Your task to perform on an android device: change the clock display to digital Image 0: 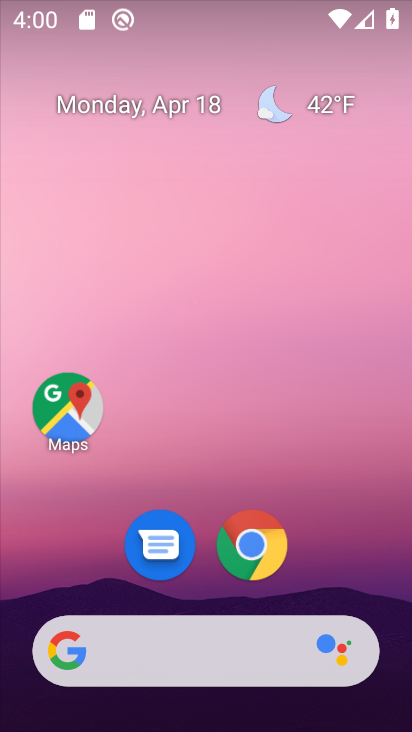
Step 0: drag from (331, 558) to (324, 107)
Your task to perform on an android device: change the clock display to digital Image 1: 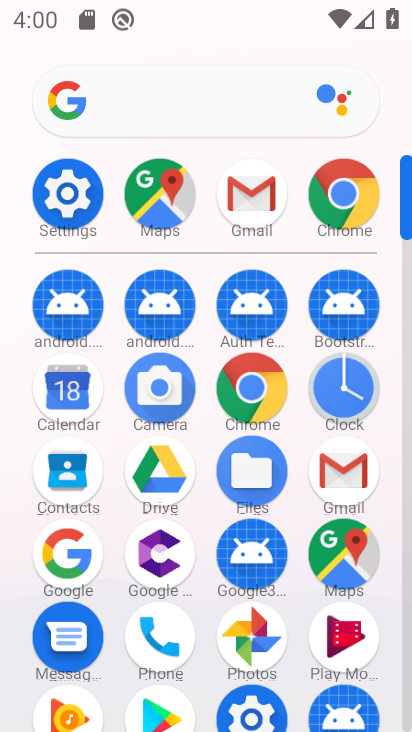
Step 1: click (345, 389)
Your task to perform on an android device: change the clock display to digital Image 2: 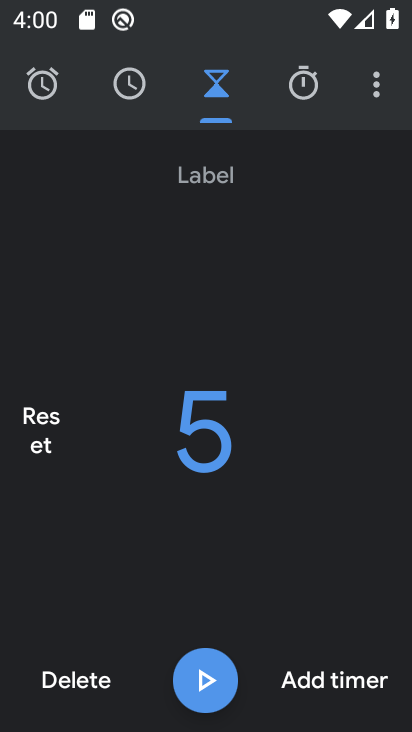
Step 2: click (379, 89)
Your task to perform on an android device: change the clock display to digital Image 3: 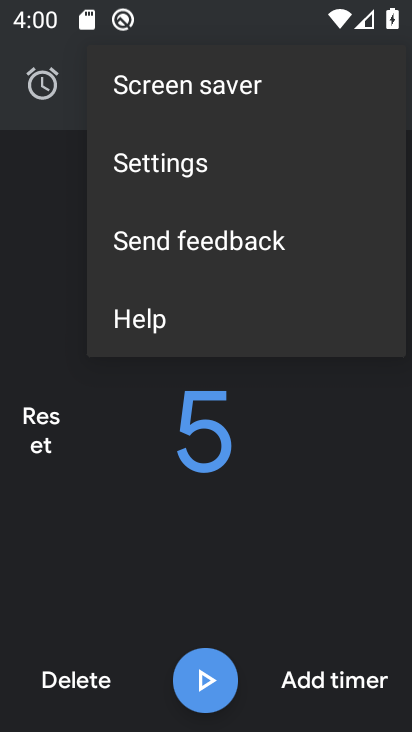
Step 3: click (210, 165)
Your task to perform on an android device: change the clock display to digital Image 4: 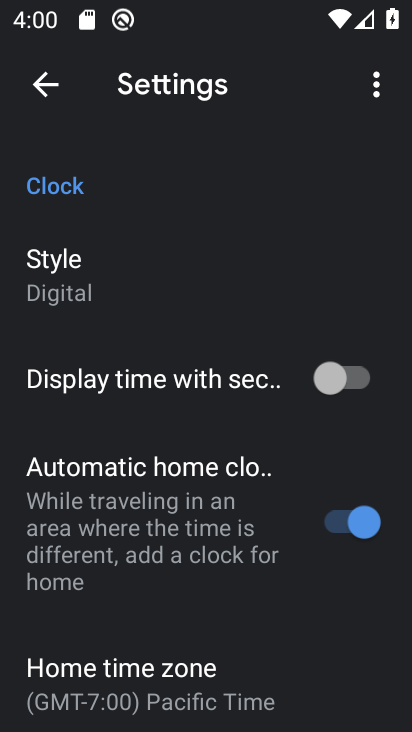
Step 4: drag from (273, 570) to (272, 405)
Your task to perform on an android device: change the clock display to digital Image 5: 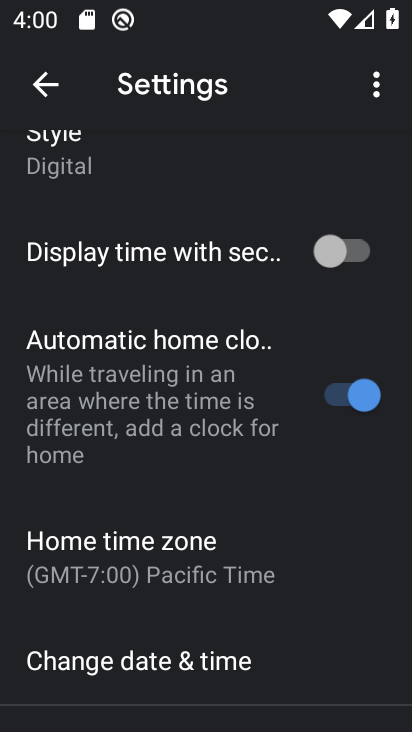
Step 5: drag from (312, 618) to (292, 395)
Your task to perform on an android device: change the clock display to digital Image 6: 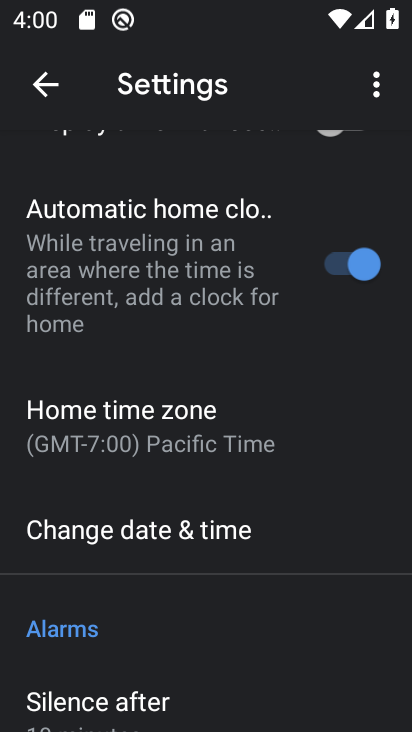
Step 6: drag from (308, 582) to (313, 399)
Your task to perform on an android device: change the clock display to digital Image 7: 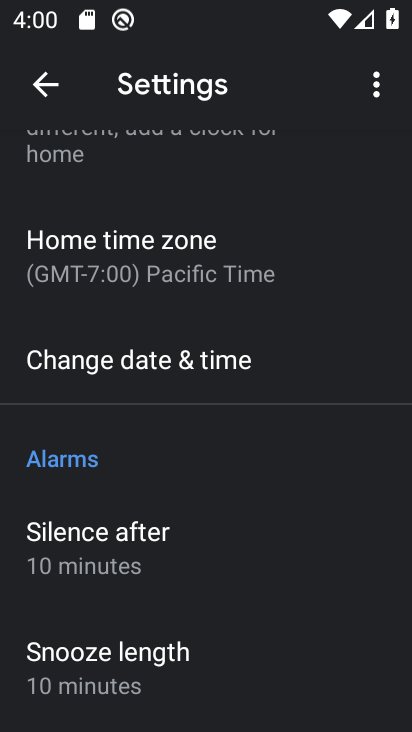
Step 7: drag from (325, 589) to (331, 419)
Your task to perform on an android device: change the clock display to digital Image 8: 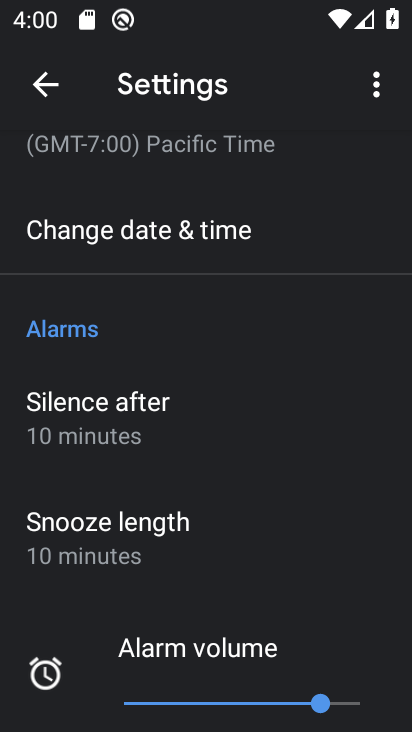
Step 8: drag from (362, 603) to (353, 391)
Your task to perform on an android device: change the clock display to digital Image 9: 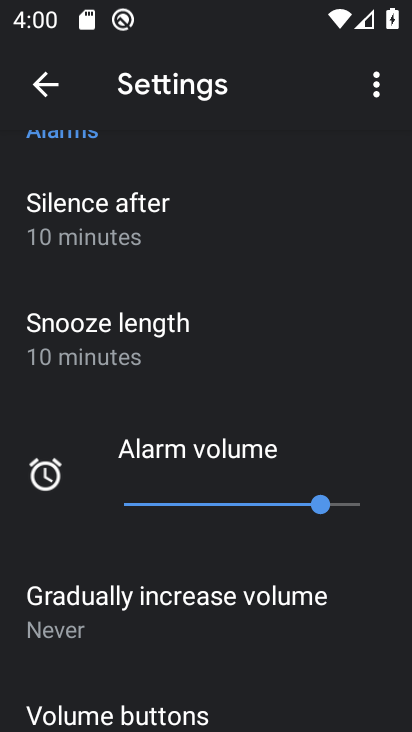
Step 9: drag from (375, 625) to (362, 396)
Your task to perform on an android device: change the clock display to digital Image 10: 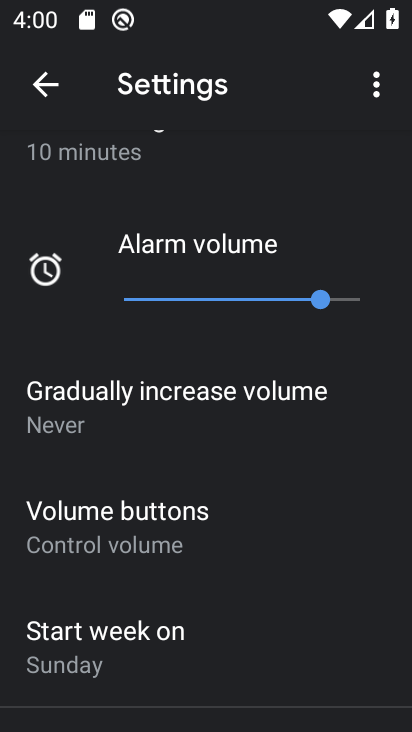
Step 10: drag from (359, 433) to (357, 573)
Your task to perform on an android device: change the clock display to digital Image 11: 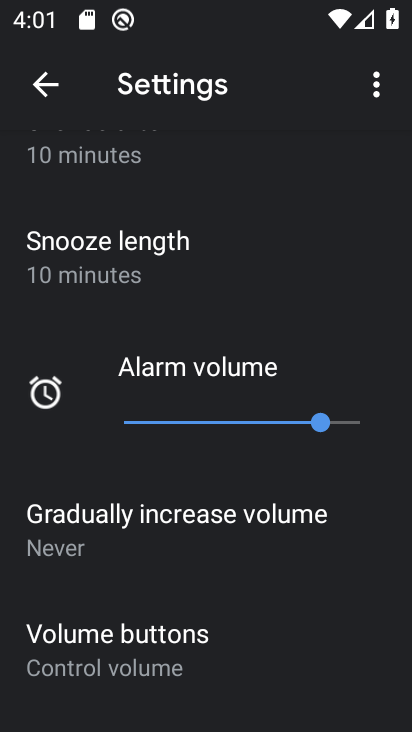
Step 11: drag from (368, 357) to (347, 527)
Your task to perform on an android device: change the clock display to digital Image 12: 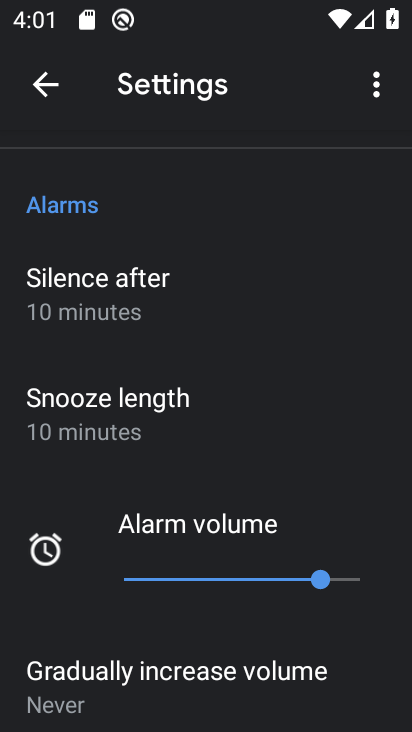
Step 12: drag from (355, 324) to (343, 492)
Your task to perform on an android device: change the clock display to digital Image 13: 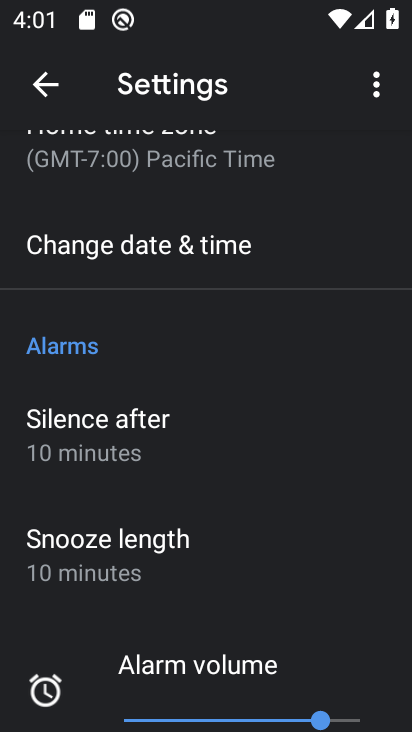
Step 13: drag from (363, 308) to (351, 446)
Your task to perform on an android device: change the clock display to digital Image 14: 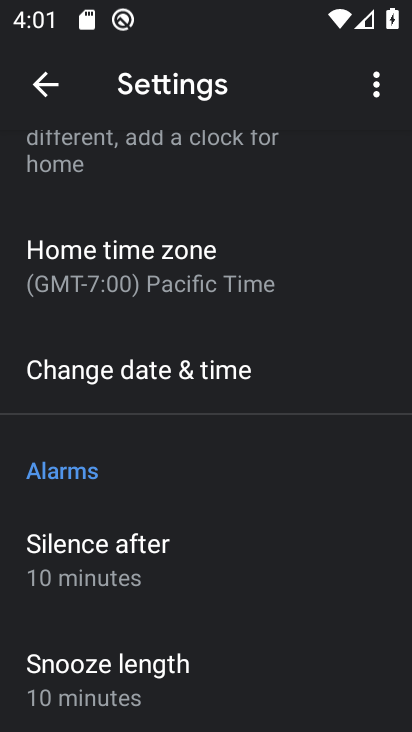
Step 14: drag from (352, 299) to (338, 437)
Your task to perform on an android device: change the clock display to digital Image 15: 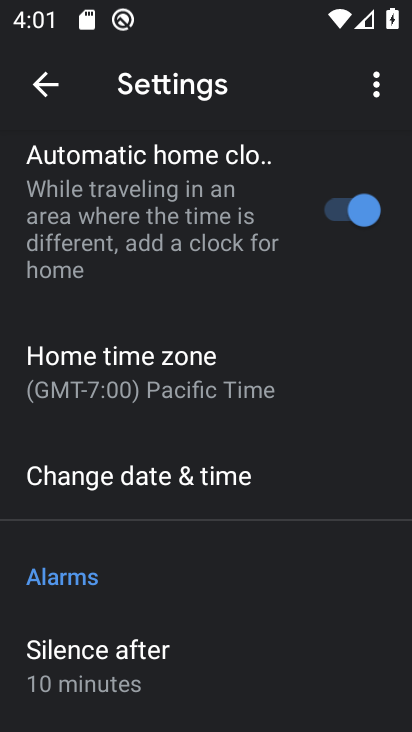
Step 15: drag from (336, 309) to (329, 469)
Your task to perform on an android device: change the clock display to digital Image 16: 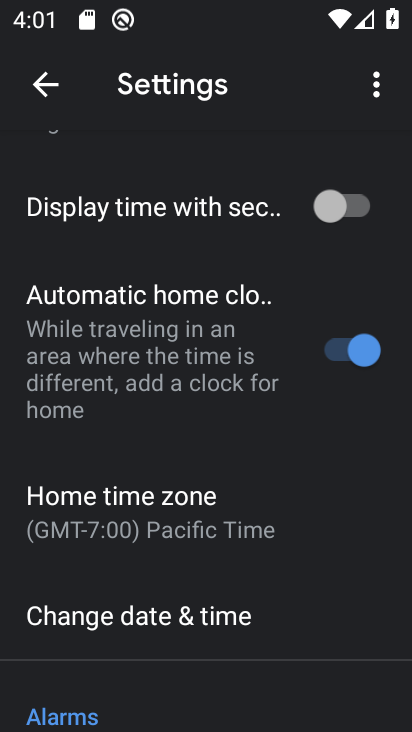
Step 16: drag from (284, 284) to (252, 500)
Your task to perform on an android device: change the clock display to digital Image 17: 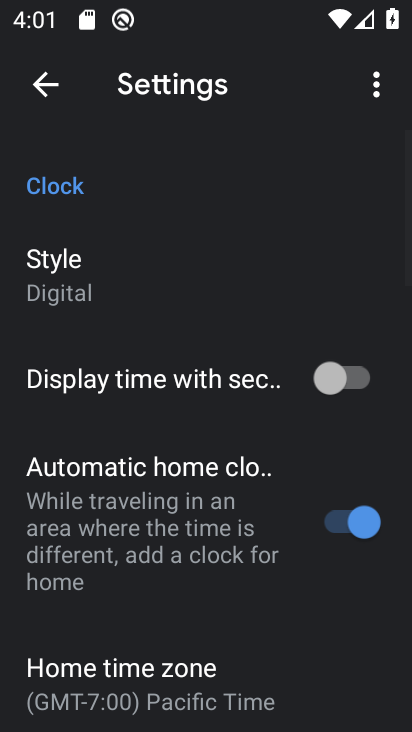
Step 17: click (51, 258)
Your task to perform on an android device: change the clock display to digital Image 18: 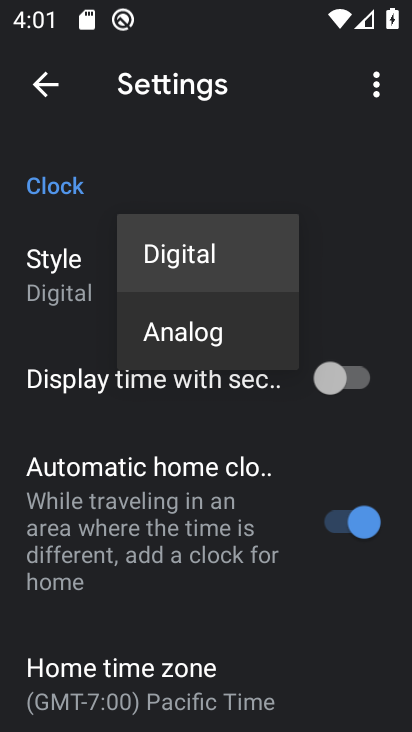
Step 18: click (179, 333)
Your task to perform on an android device: change the clock display to digital Image 19: 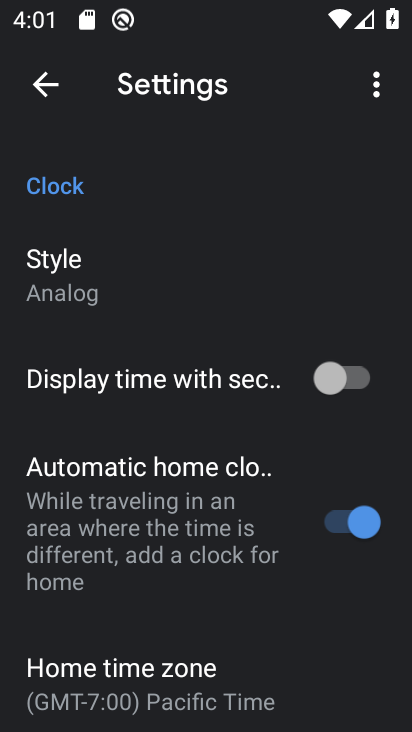
Step 19: task complete